Your task to perform on an android device: toggle data saver in the chrome app Image 0: 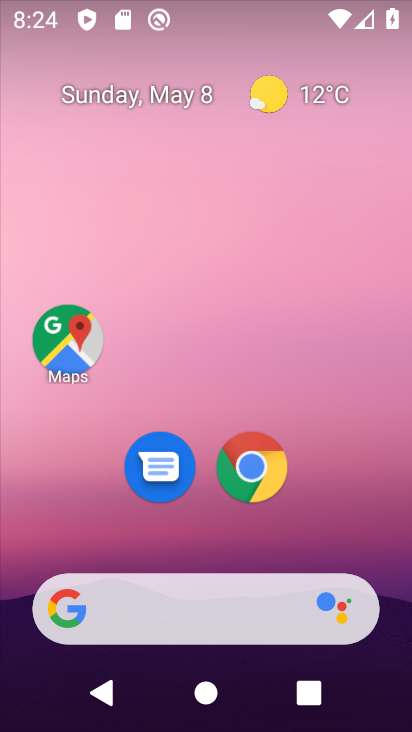
Step 0: click (249, 459)
Your task to perform on an android device: toggle data saver in the chrome app Image 1: 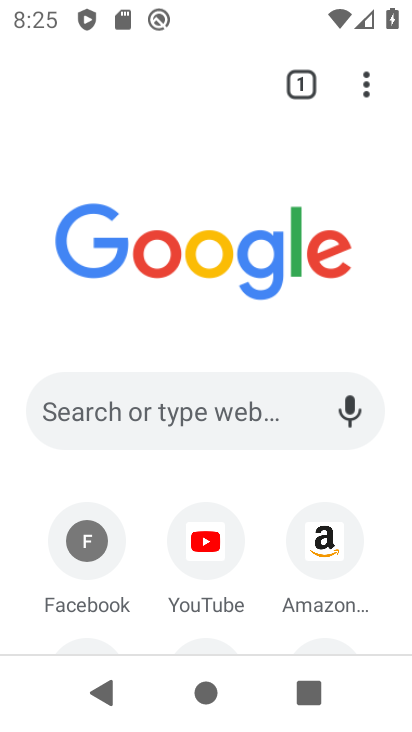
Step 1: click (369, 79)
Your task to perform on an android device: toggle data saver in the chrome app Image 2: 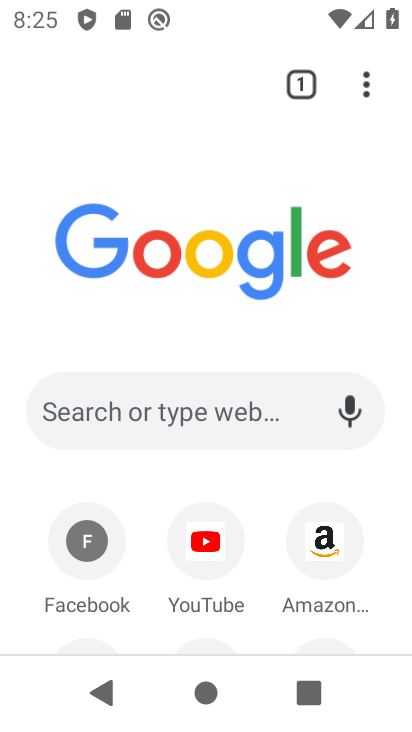
Step 2: drag from (377, 79) to (109, 501)
Your task to perform on an android device: toggle data saver in the chrome app Image 3: 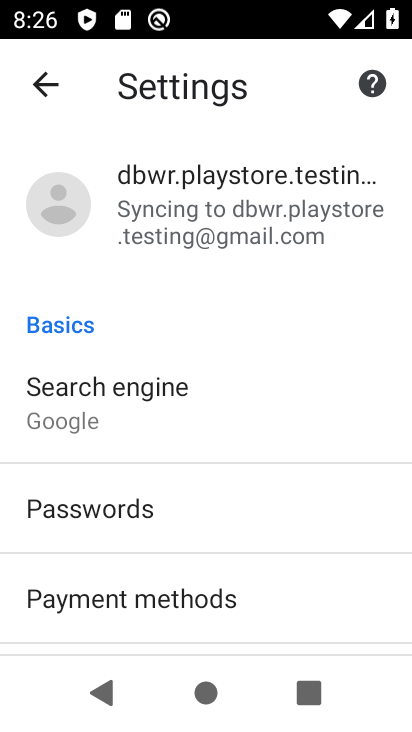
Step 3: drag from (219, 528) to (290, 101)
Your task to perform on an android device: toggle data saver in the chrome app Image 4: 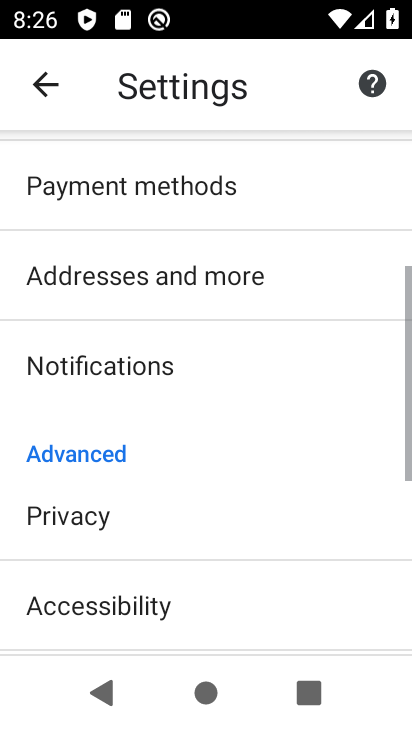
Step 4: drag from (255, 479) to (312, 92)
Your task to perform on an android device: toggle data saver in the chrome app Image 5: 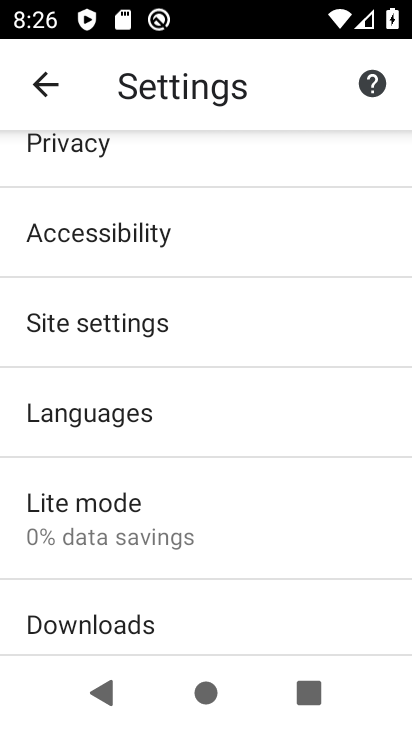
Step 5: click (127, 510)
Your task to perform on an android device: toggle data saver in the chrome app Image 6: 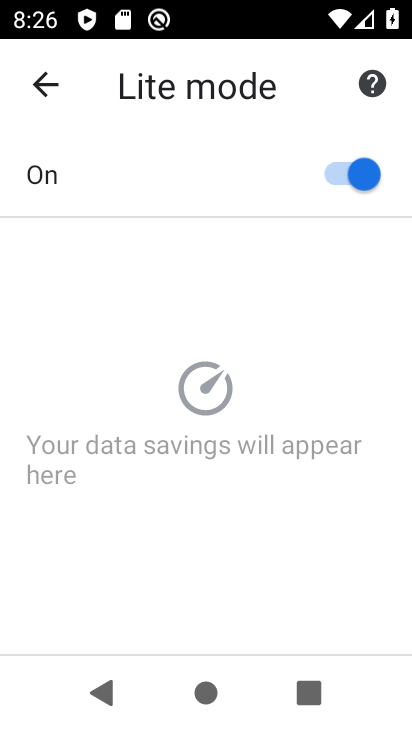
Step 6: click (344, 178)
Your task to perform on an android device: toggle data saver in the chrome app Image 7: 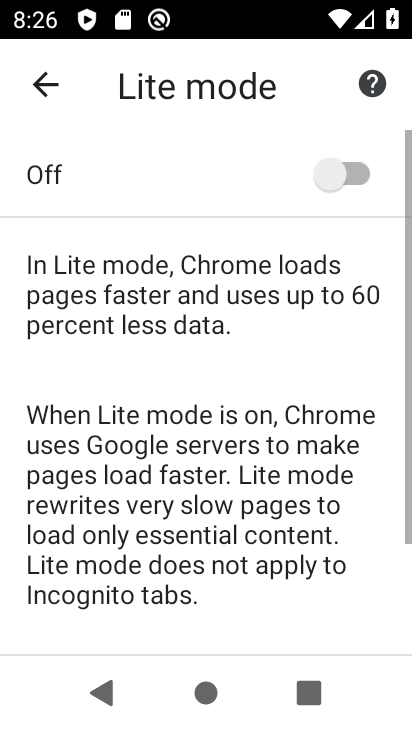
Step 7: task complete